Your task to perform on an android device: turn on showing notifications on the lock screen Image 0: 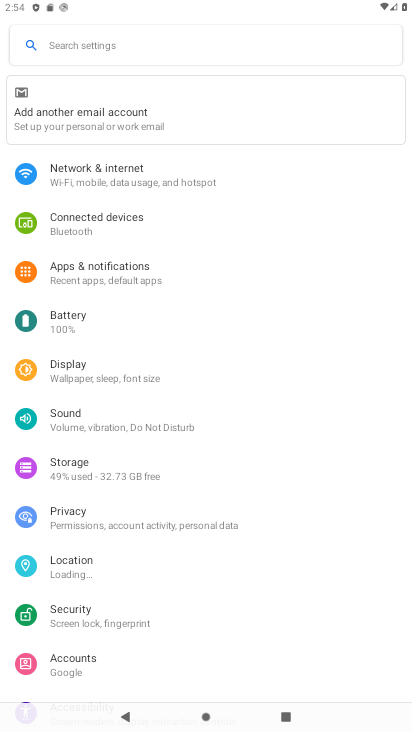
Step 0: press home button
Your task to perform on an android device: turn on showing notifications on the lock screen Image 1: 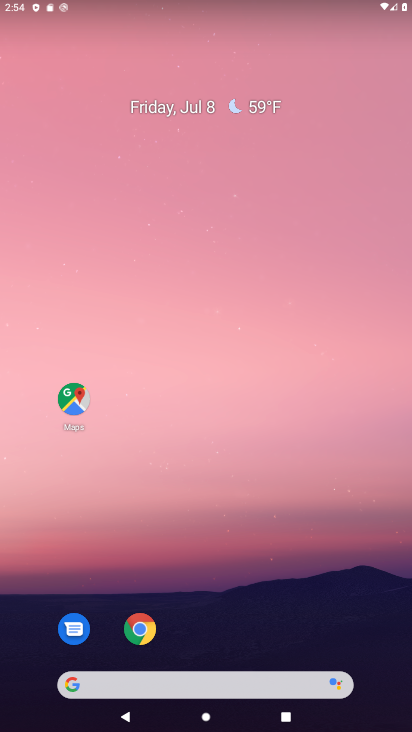
Step 1: drag from (209, 643) to (232, 134)
Your task to perform on an android device: turn on showing notifications on the lock screen Image 2: 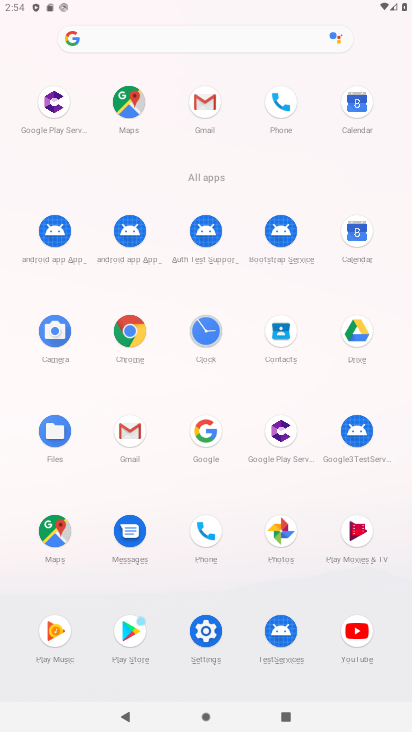
Step 2: click (207, 624)
Your task to perform on an android device: turn on showing notifications on the lock screen Image 3: 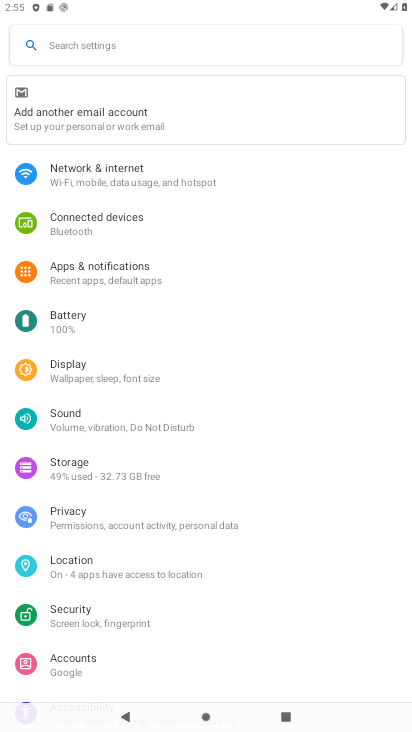
Step 3: click (153, 270)
Your task to perform on an android device: turn on showing notifications on the lock screen Image 4: 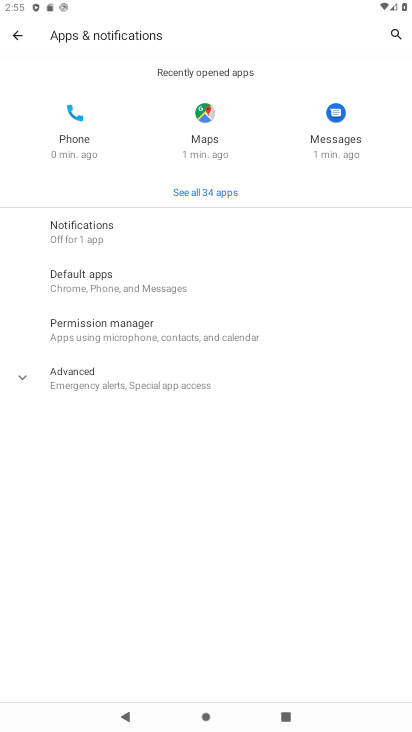
Step 4: click (123, 230)
Your task to perform on an android device: turn on showing notifications on the lock screen Image 5: 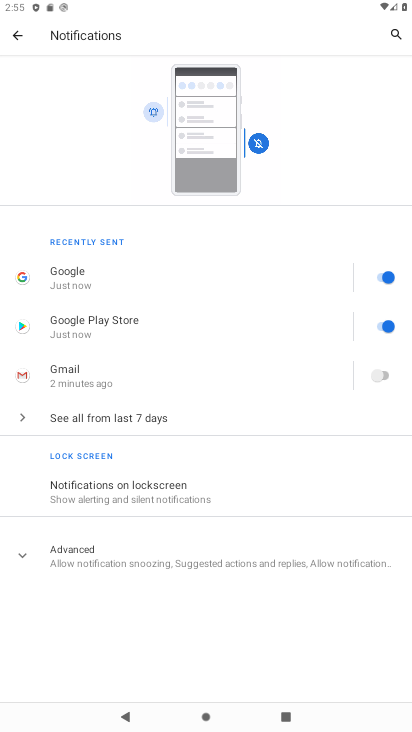
Step 5: click (23, 551)
Your task to perform on an android device: turn on showing notifications on the lock screen Image 6: 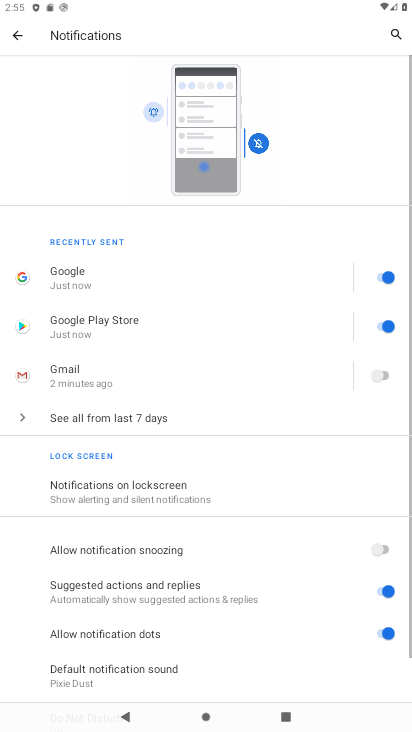
Step 6: click (102, 506)
Your task to perform on an android device: turn on showing notifications on the lock screen Image 7: 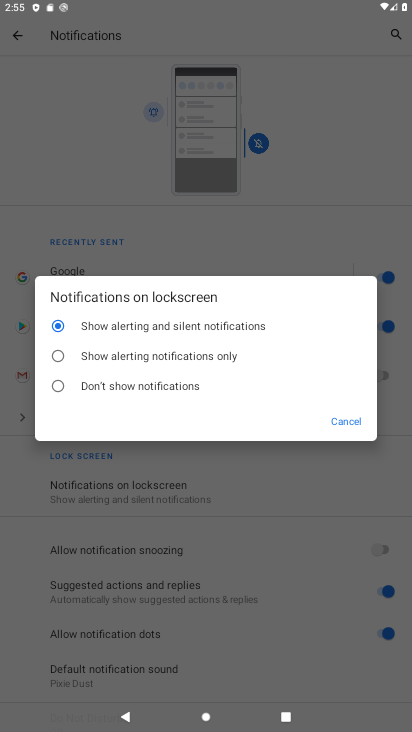
Step 7: click (52, 360)
Your task to perform on an android device: turn on showing notifications on the lock screen Image 8: 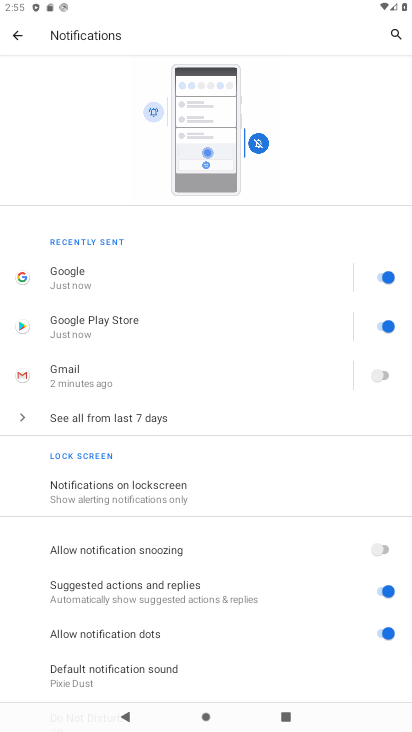
Step 8: task complete